Your task to perform on an android device: Check the news Image 0: 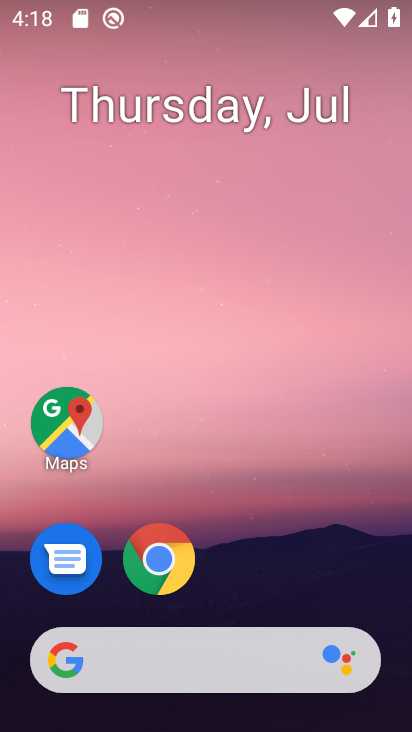
Step 0: drag from (215, 683) to (331, 243)
Your task to perform on an android device: Check the news Image 1: 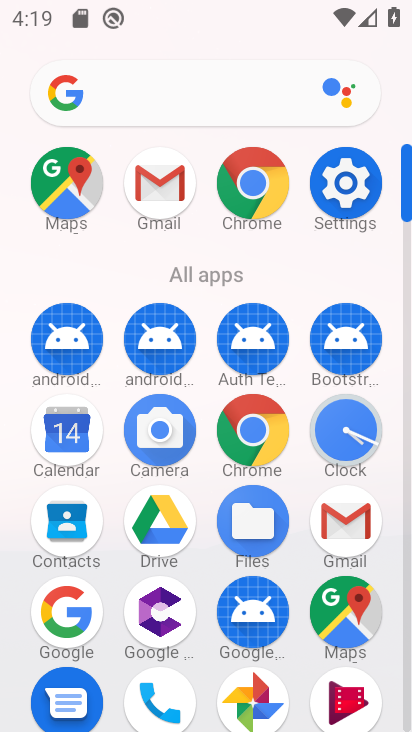
Step 1: click (71, 623)
Your task to perform on an android device: Check the news Image 2: 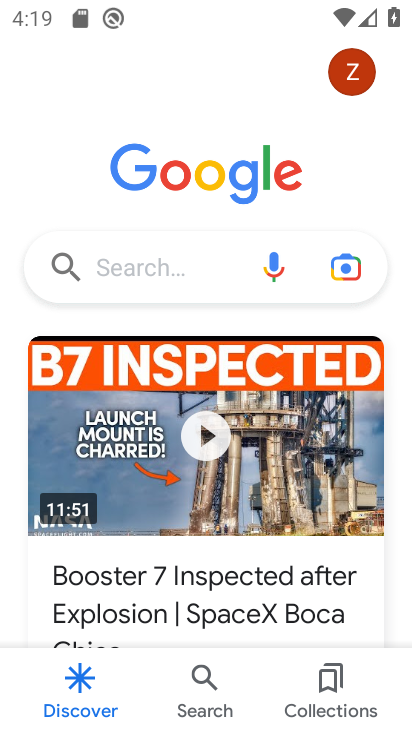
Step 2: click (155, 272)
Your task to perform on an android device: Check the news Image 3: 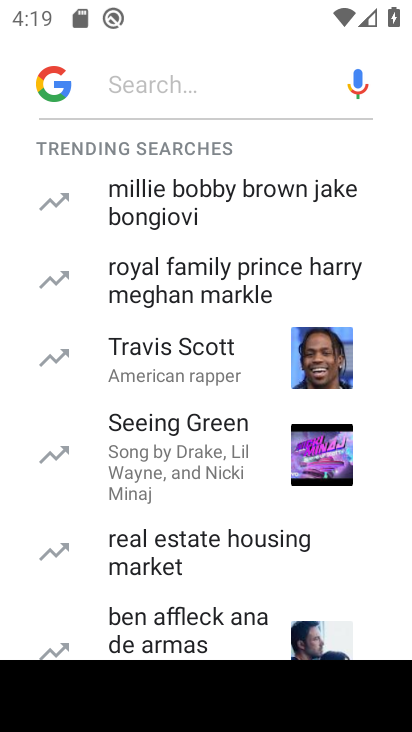
Step 3: type "news"
Your task to perform on an android device: Check the news Image 4: 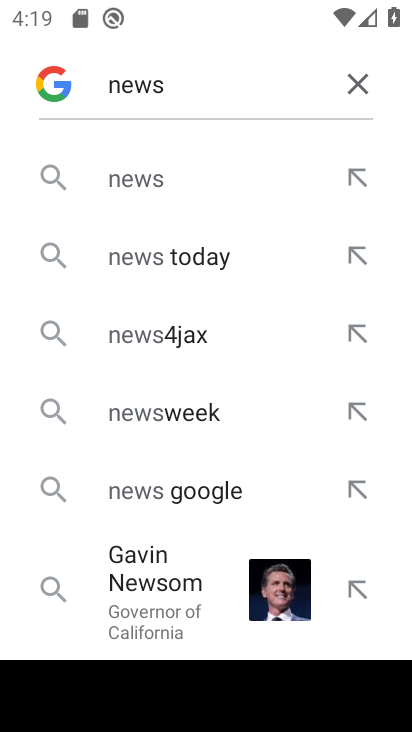
Step 4: click (274, 171)
Your task to perform on an android device: Check the news Image 5: 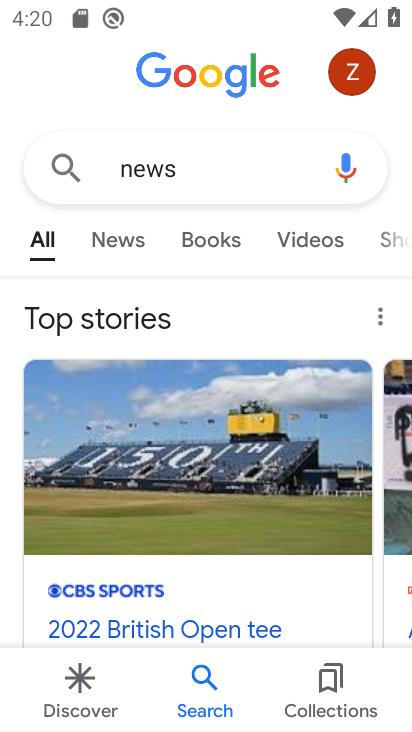
Step 5: click (135, 244)
Your task to perform on an android device: Check the news Image 6: 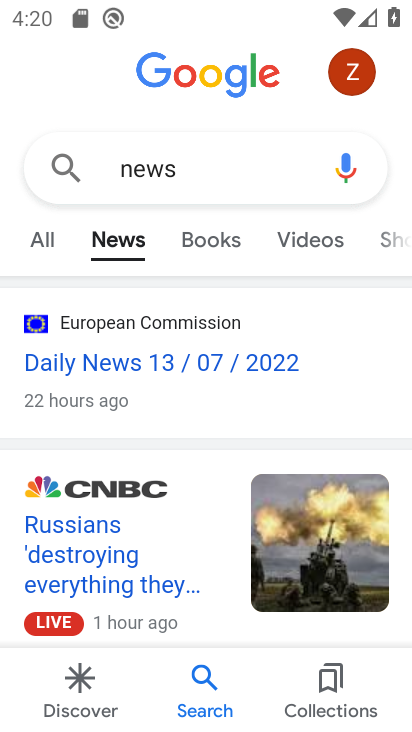
Step 6: task complete